Your task to perform on an android device: Open Reddit.com Image 0: 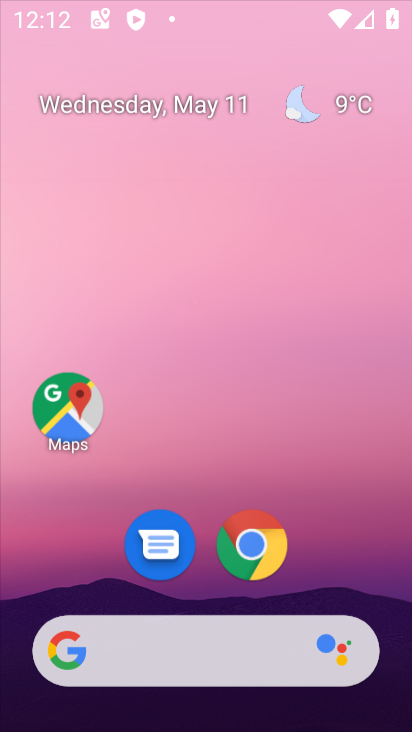
Step 0: press home button
Your task to perform on an android device: Open Reddit.com Image 1: 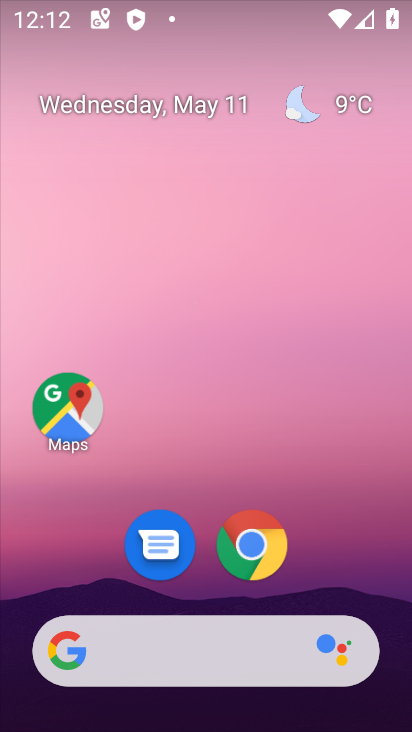
Step 1: click (248, 565)
Your task to perform on an android device: Open Reddit.com Image 2: 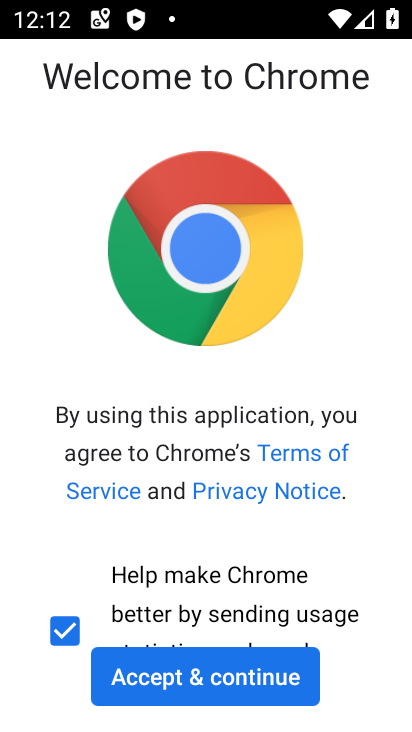
Step 2: click (244, 663)
Your task to perform on an android device: Open Reddit.com Image 3: 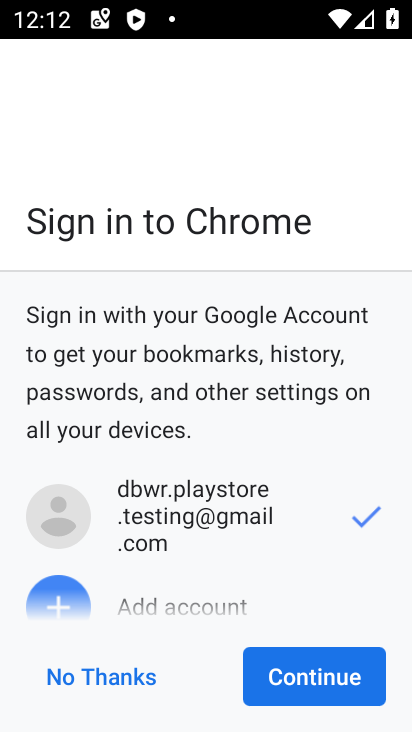
Step 3: click (313, 663)
Your task to perform on an android device: Open Reddit.com Image 4: 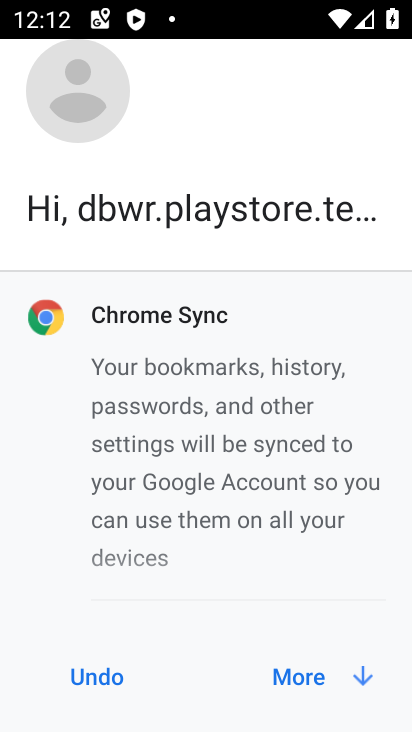
Step 4: click (313, 663)
Your task to perform on an android device: Open Reddit.com Image 5: 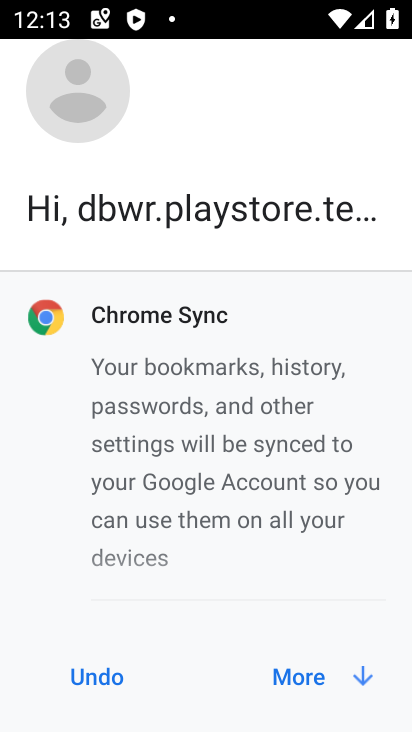
Step 5: click (313, 663)
Your task to perform on an android device: Open Reddit.com Image 6: 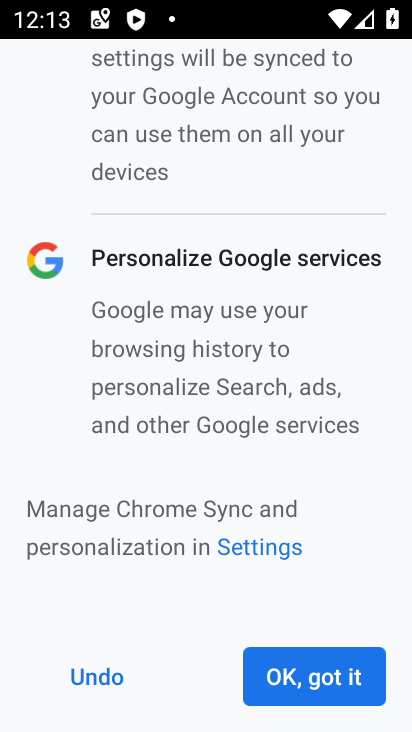
Step 6: click (313, 663)
Your task to perform on an android device: Open Reddit.com Image 7: 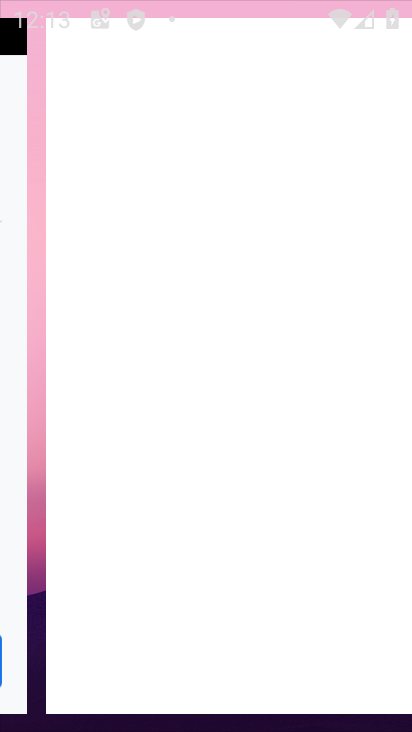
Step 7: click (313, 663)
Your task to perform on an android device: Open Reddit.com Image 8: 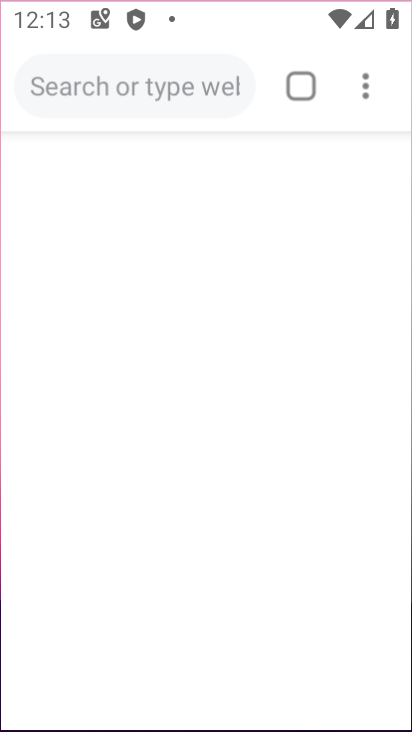
Step 8: click (313, 663)
Your task to perform on an android device: Open Reddit.com Image 9: 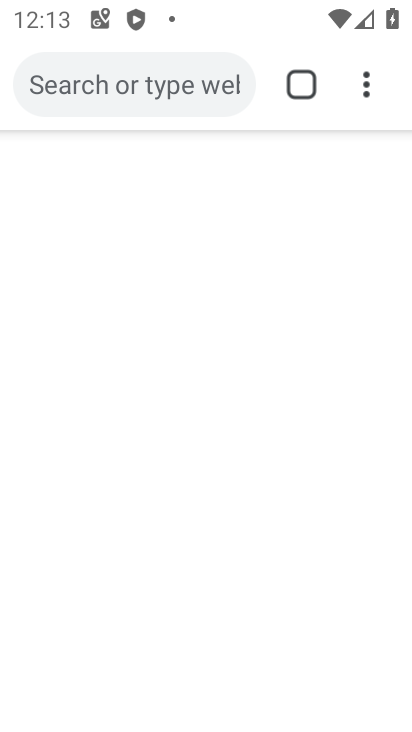
Step 9: click (313, 663)
Your task to perform on an android device: Open Reddit.com Image 10: 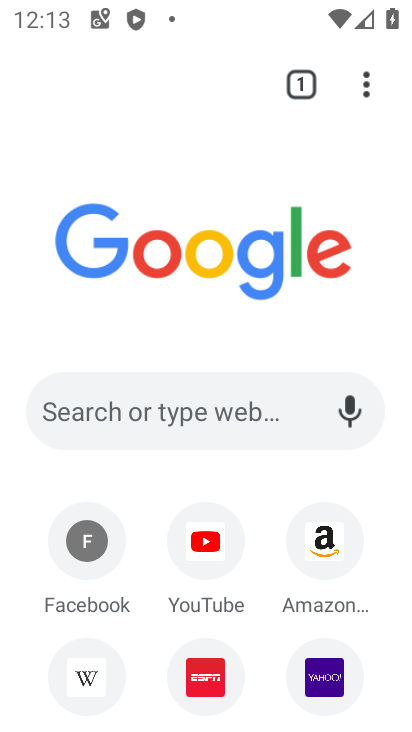
Step 10: click (257, 400)
Your task to perform on an android device: Open Reddit.com Image 11: 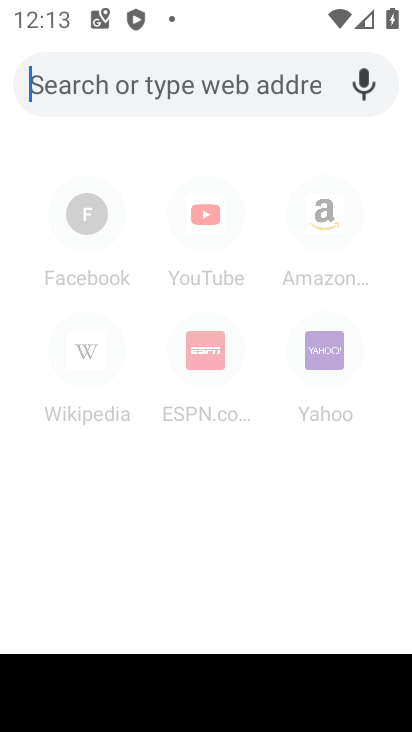
Step 11: click (181, 96)
Your task to perform on an android device: Open Reddit.com Image 12: 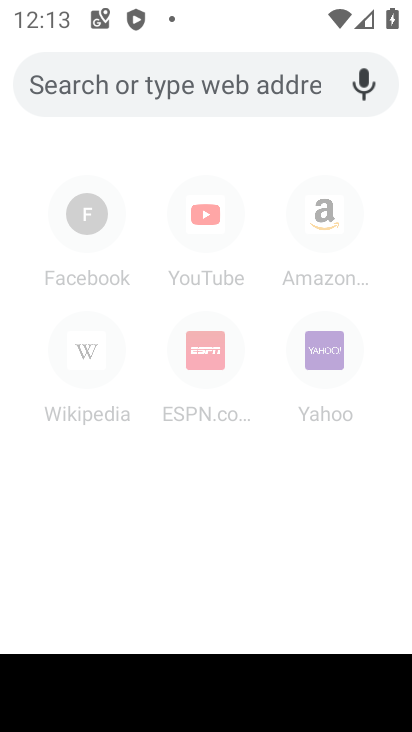
Step 12: type "Reddit.com"
Your task to perform on an android device: Open Reddit.com Image 13: 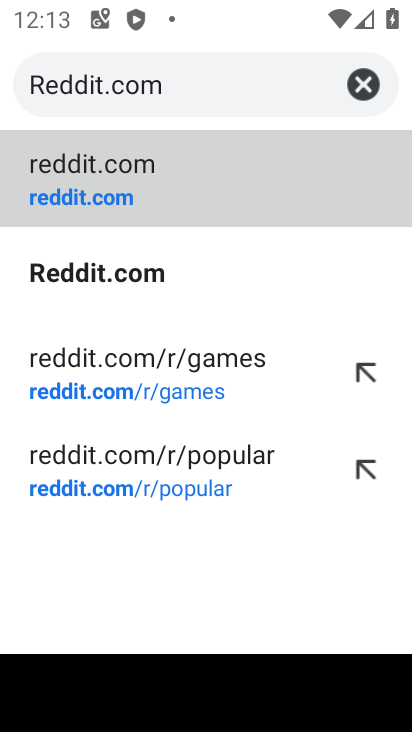
Step 13: click (93, 174)
Your task to perform on an android device: Open Reddit.com Image 14: 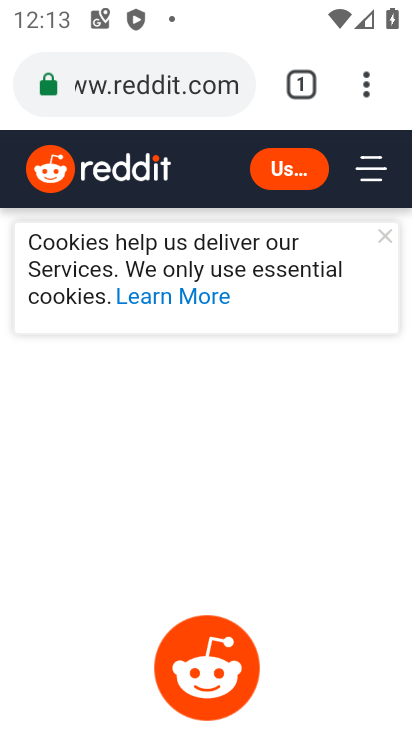
Step 14: task complete